Your task to perform on an android device: check data usage Image 0: 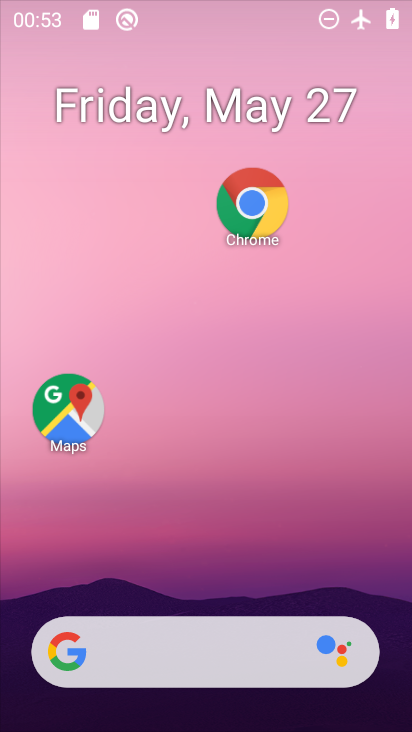
Step 0: drag from (197, 514) to (193, 17)
Your task to perform on an android device: check data usage Image 1: 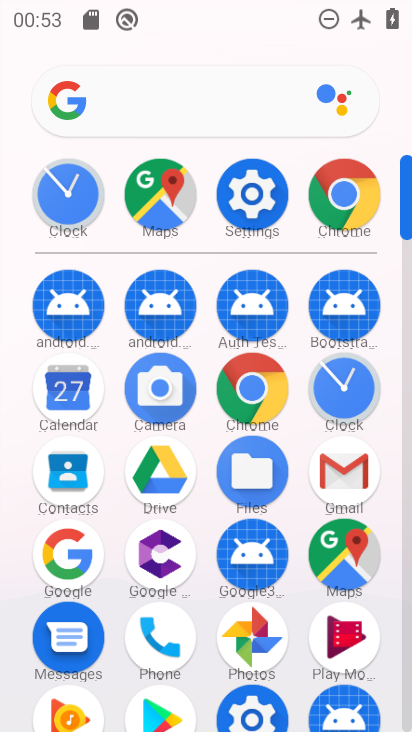
Step 1: click (246, 194)
Your task to perform on an android device: check data usage Image 2: 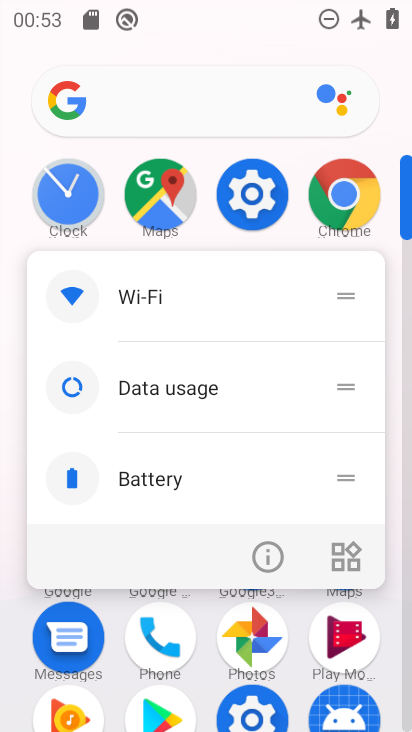
Step 2: click (186, 415)
Your task to perform on an android device: check data usage Image 3: 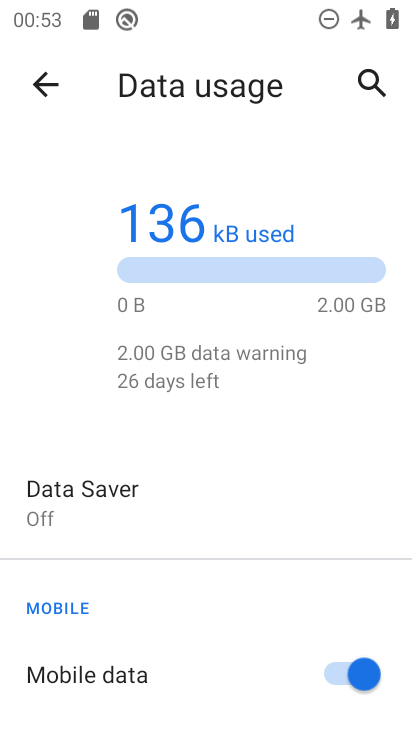
Step 3: task complete